Your task to perform on an android device: Open Yahoo.com Image 0: 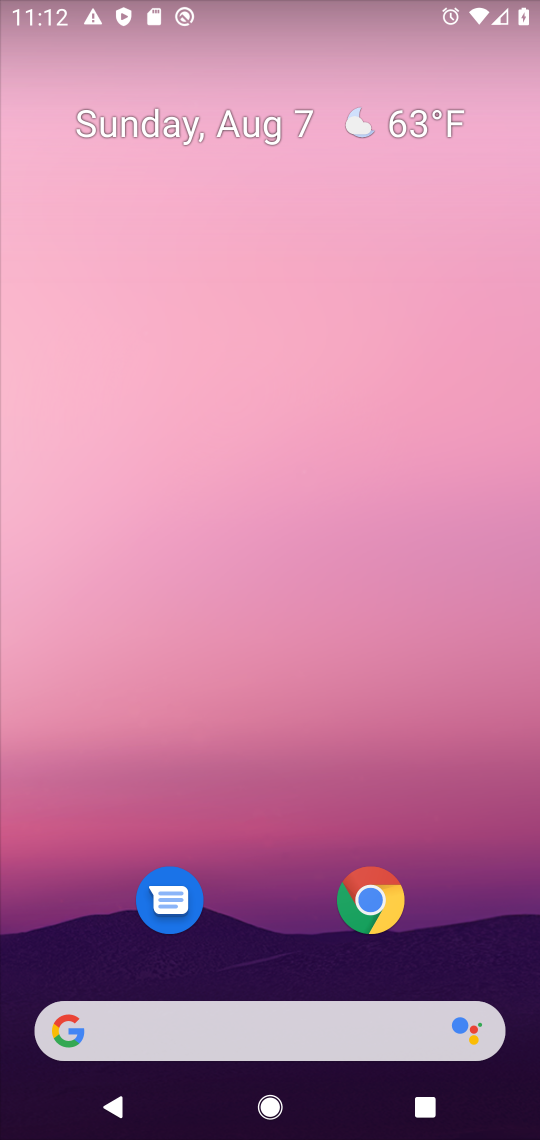
Step 0: press home button
Your task to perform on an android device: Open Yahoo.com Image 1: 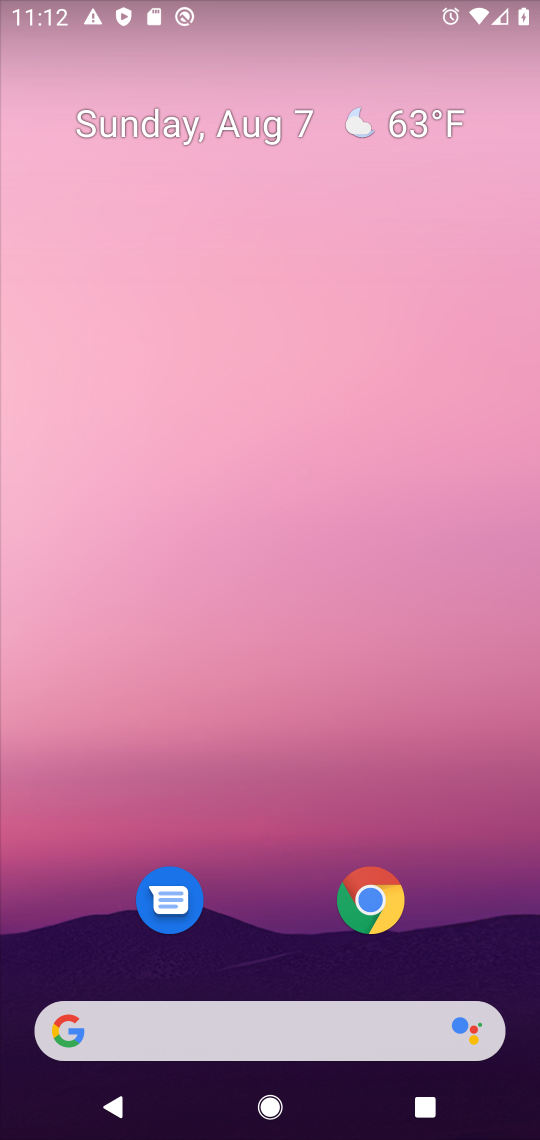
Step 1: press home button
Your task to perform on an android device: Open Yahoo.com Image 2: 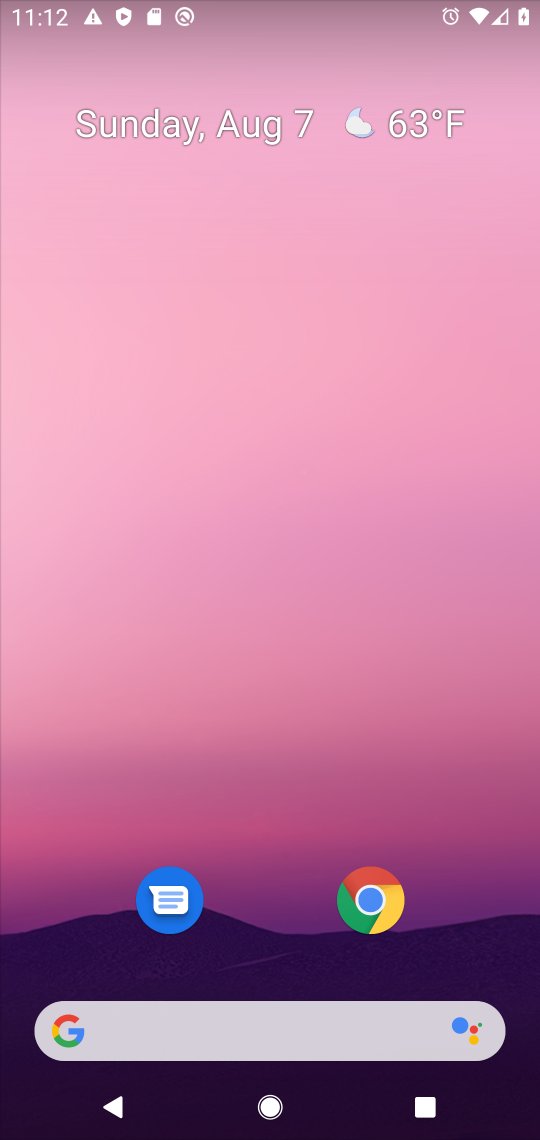
Step 2: click (371, 891)
Your task to perform on an android device: Open Yahoo.com Image 3: 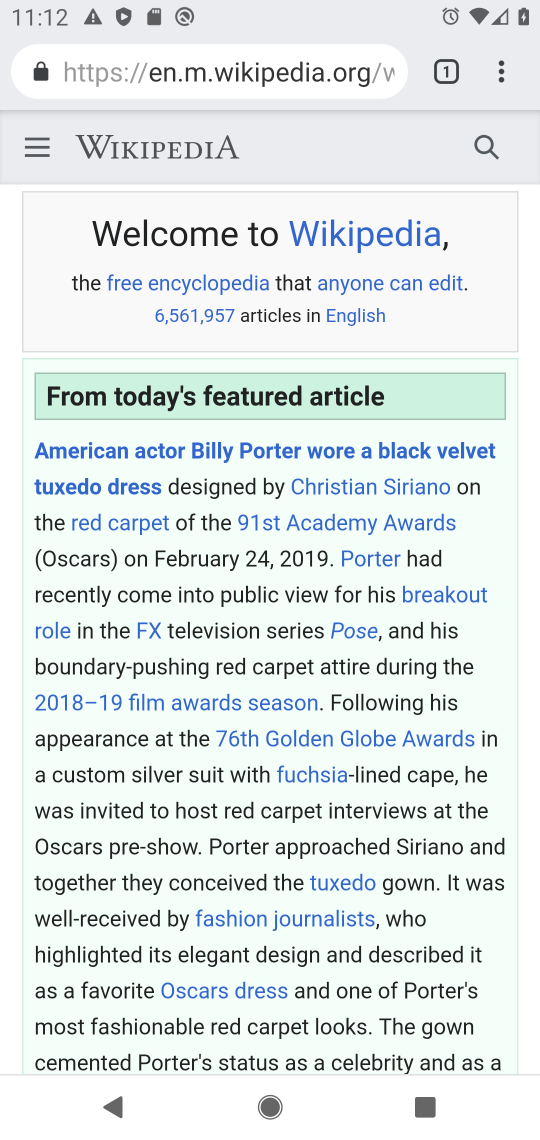
Step 3: click (447, 59)
Your task to perform on an android device: Open Yahoo.com Image 4: 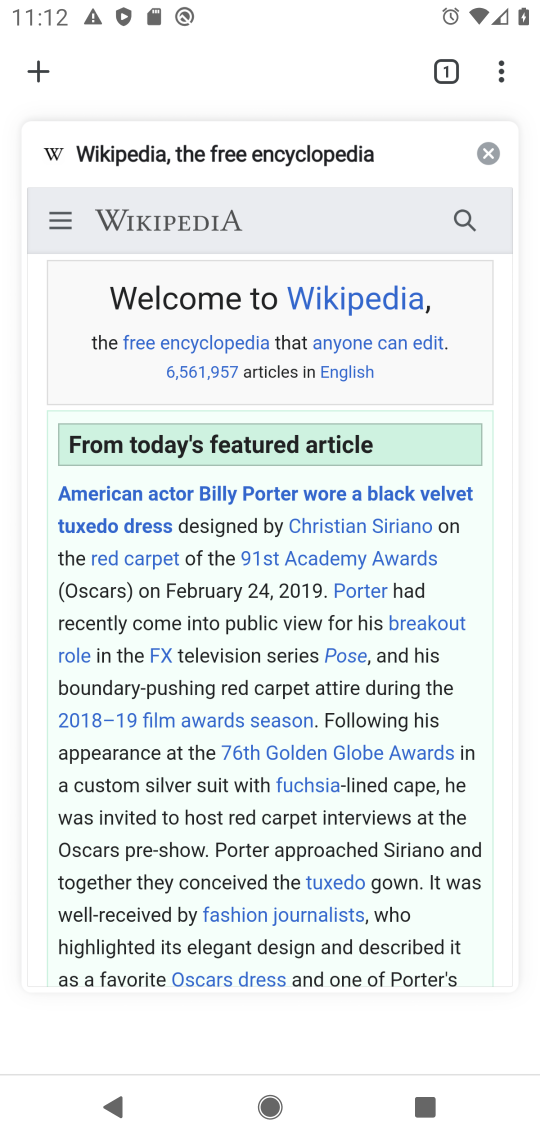
Step 4: click (27, 66)
Your task to perform on an android device: Open Yahoo.com Image 5: 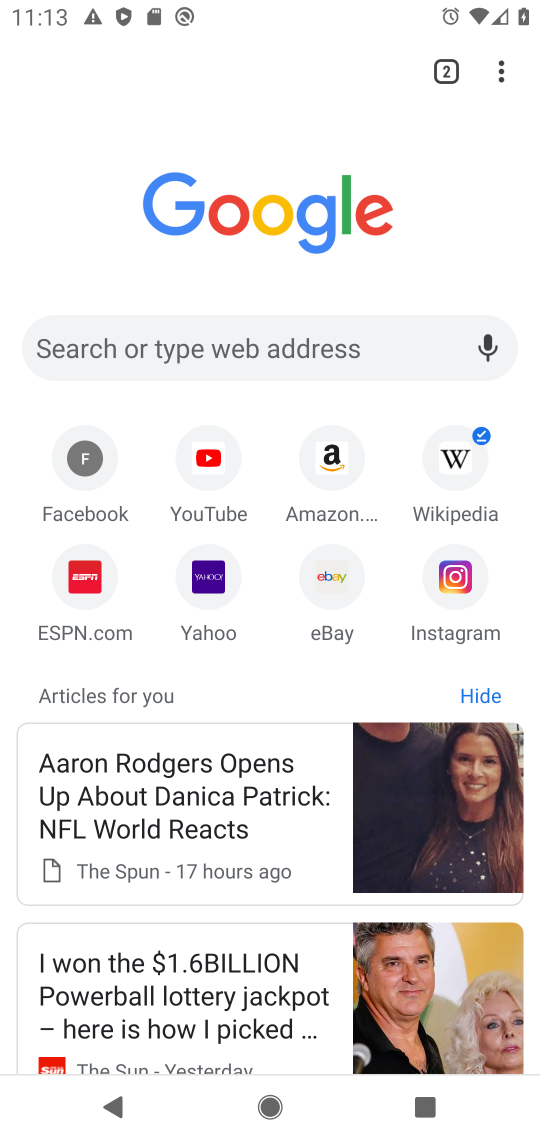
Step 5: click (204, 577)
Your task to perform on an android device: Open Yahoo.com Image 6: 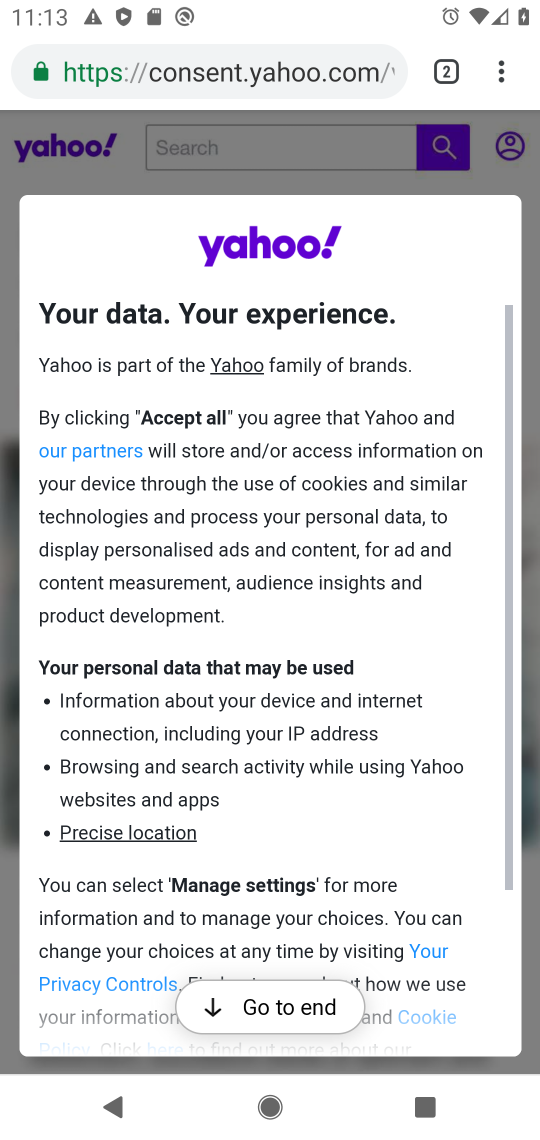
Step 6: click (251, 1005)
Your task to perform on an android device: Open Yahoo.com Image 7: 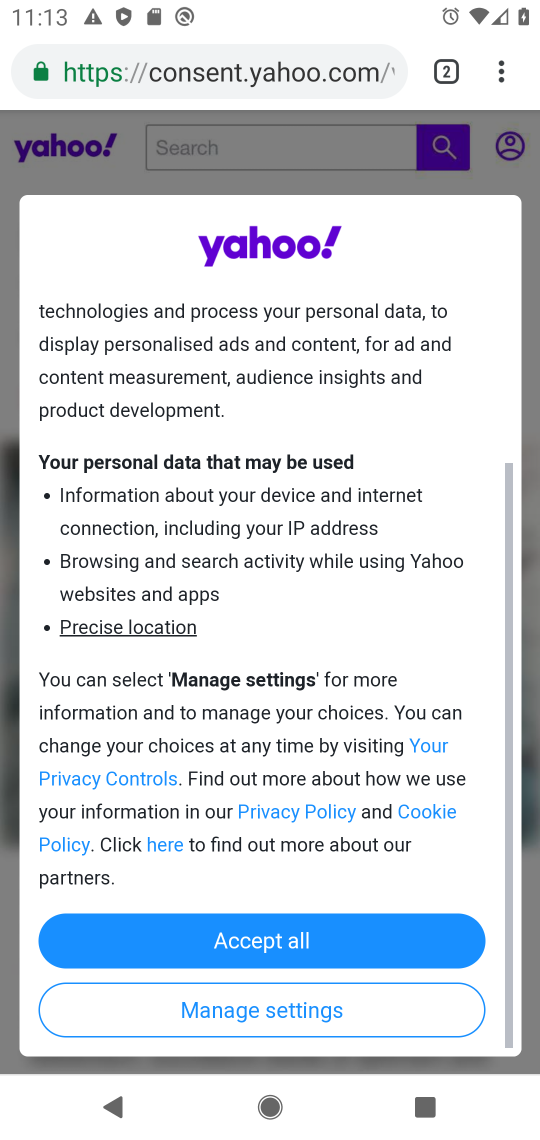
Step 7: click (273, 938)
Your task to perform on an android device: Open Yahoo.com Image 8: 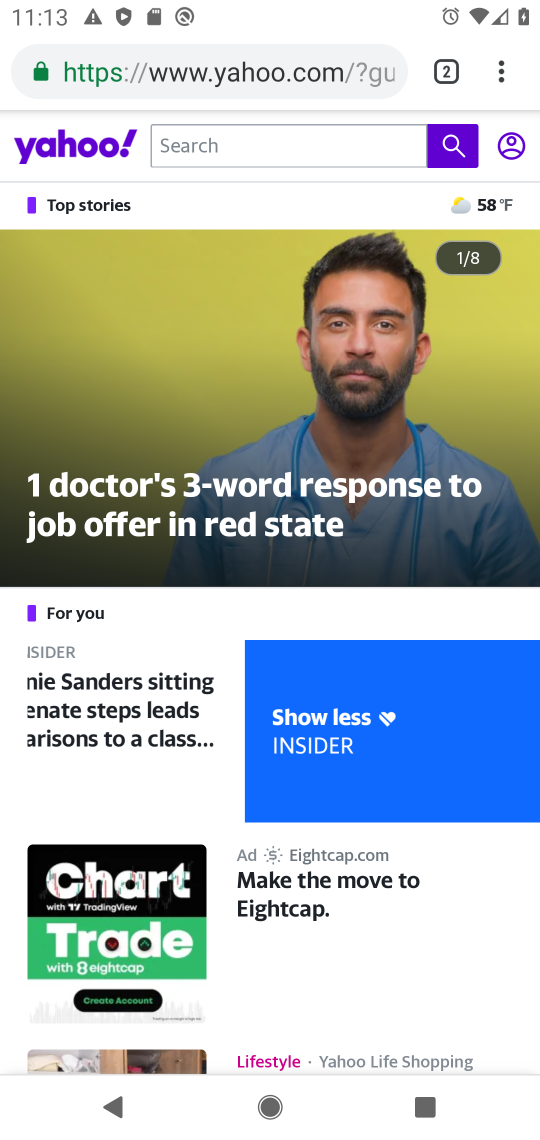
Step 8: task complete